Your task to perform on an android device: See recent photos Image 0: 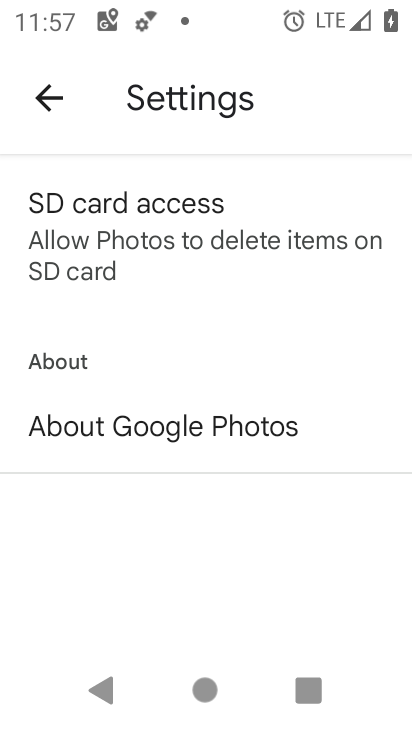
Step 0: press home button
Your task to perform on an android device: See recent photos Image 1: 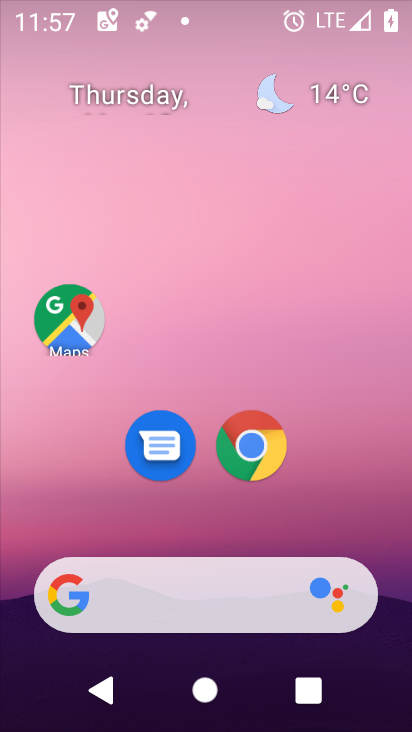
Step 1: drag from (235, 512) to (164, 160)
Your task to perform on an android device: See recent photos Image 2: 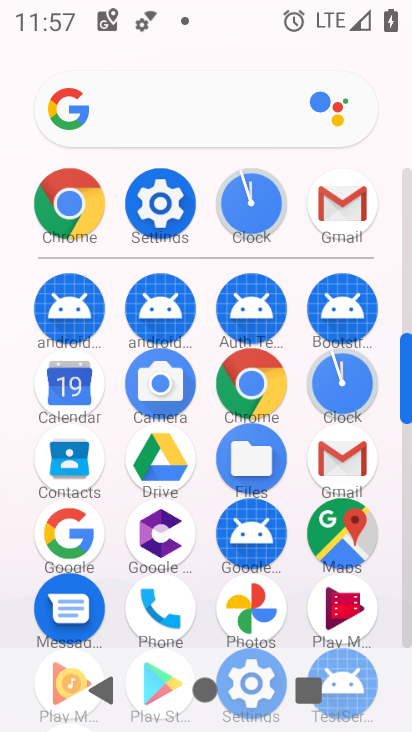
Step 2: click (236, 598)
Your task to perform on an android device: See recent photos Image 3: 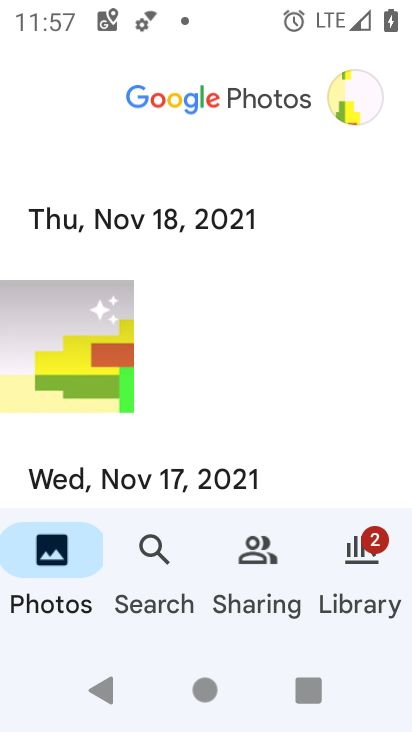
Step 3: task complete